Your task to perform on an android device: Go to Wikipedia Image 0: 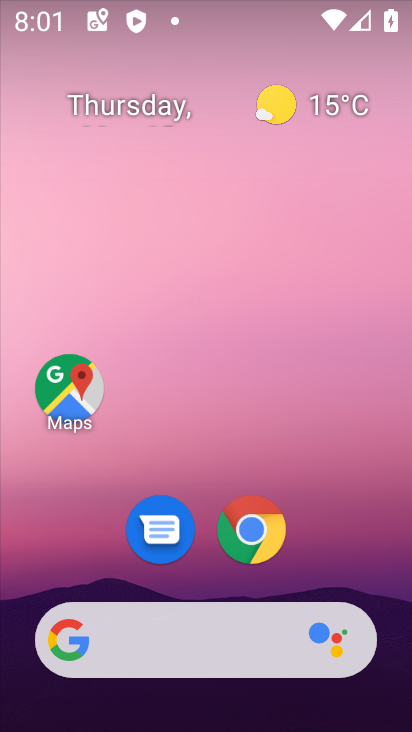
Step 0: click (209, 646)
Your task to perform on an android device: Go to Wikipedia Image 1: 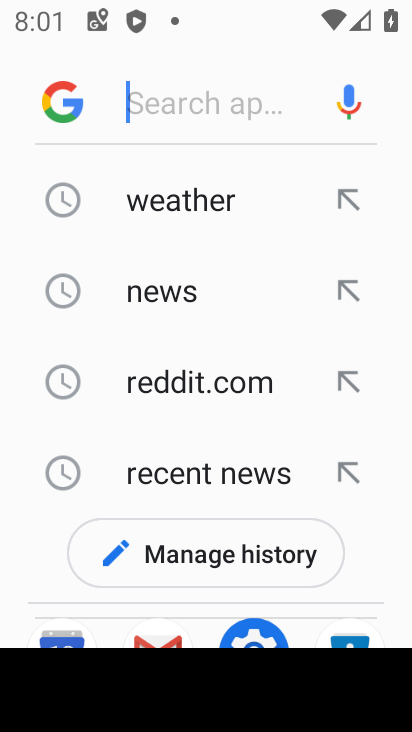
Step 1: type "wikipedia"
Your task to perform on an android device: Go to Wikipedia Image 2: 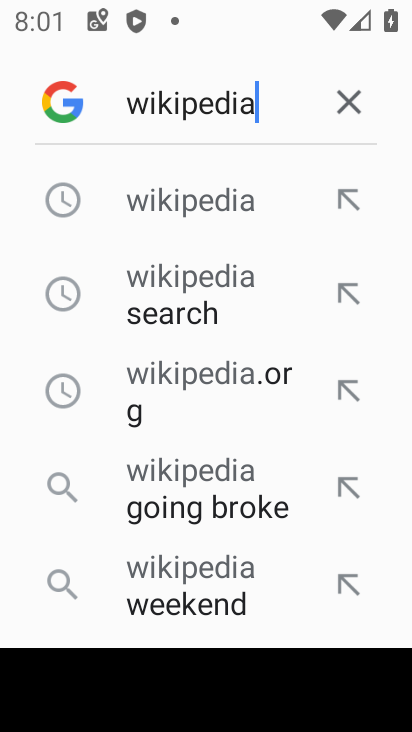
Step 2: click (179, 202)
Your task to perform on an android device: Go to Wikipedia Image 3: 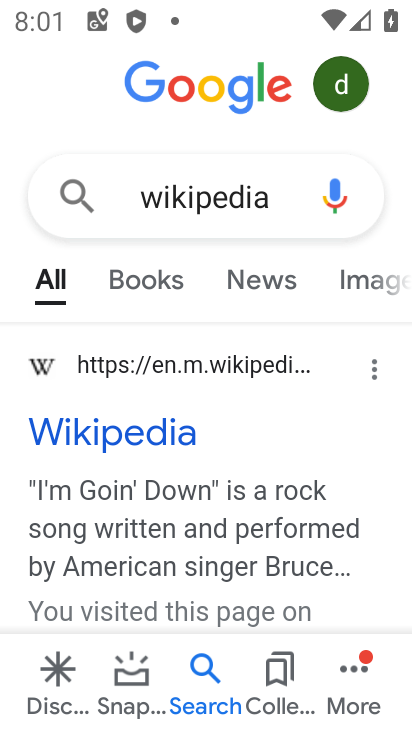
Step 3: click (135, 371)
Your task to perform on an android device: Go to Wikipedia Image 4: 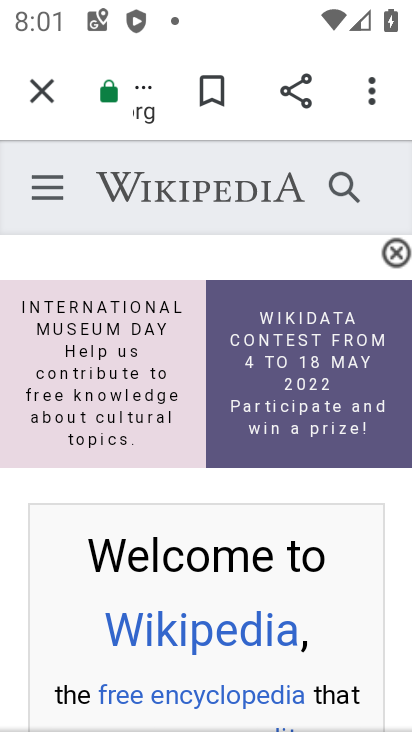
Step 4: task complete